Your task to perform on an android device: Nike Air Max 2020 shoes on Nike.com Image 0: 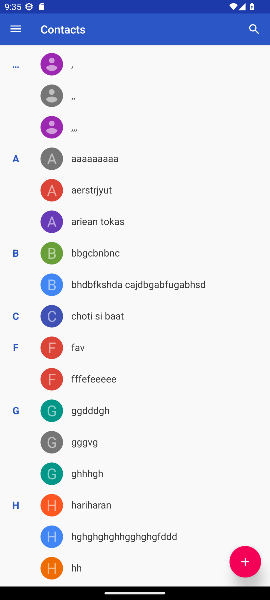
Step 0: press home button
Your task to perform on an android device: Nike Air Max 2020 shoes on Nike.com Image 1: 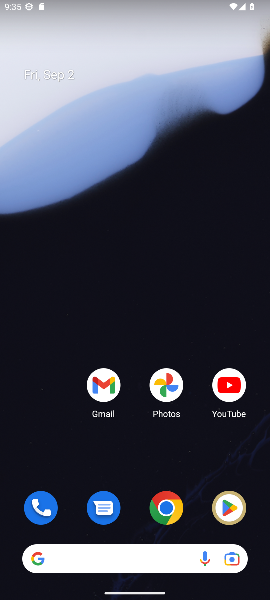
Step 1: drag from (141, 462) to (159, 97)
Your task to perform on an android device: Nike Air Max 2020 shoes on Nike.com Image 2: 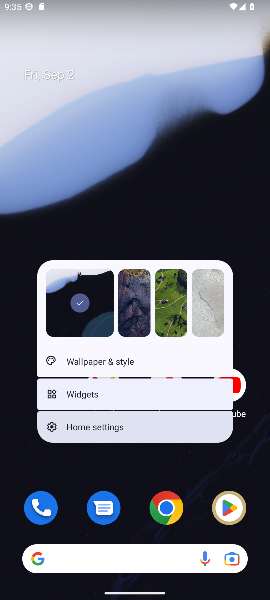
Step 2: click (155, 134)
Your task to perform on an android device: Nike Air Max 2020 shoes on Nike.com Image 3: 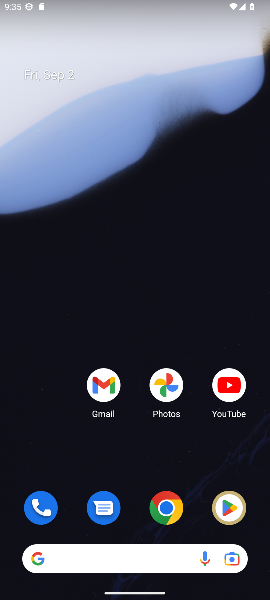
Step 3: drag from (135, 474) to (70, 79)
Your task to perform on an android device: Nike Air Max 2020 shoes on Nike.com Image 4: 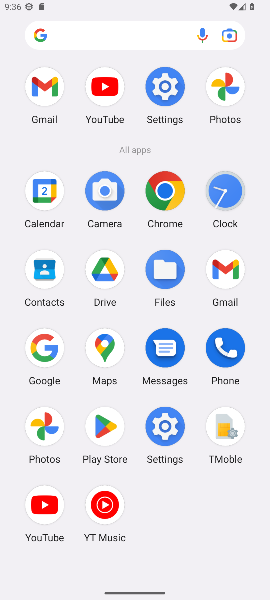
Step 4: click (163, 194)
Your task to perform on an android device: Nike Air Max 2020 shoes on Nike.com Image 5: 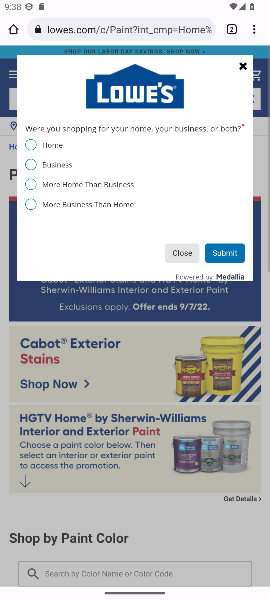
Step 5: click (110, 28)
Your task to perform on an android device: Nike Air Max 2020 shoes on Nike.com Image 6: 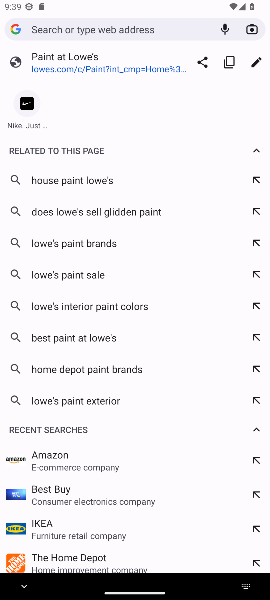
Step 6: type "Nike.com"
Your task to perform on an android device: Nike Air Max 2020 shoes on Nike.com Image 7: 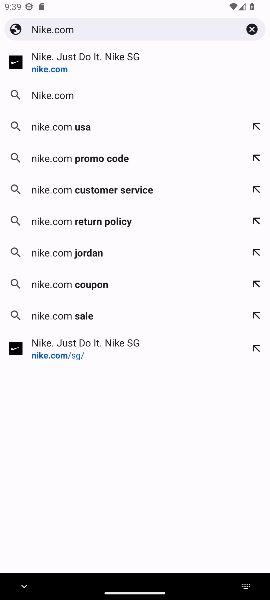
Step 7: click (46, 63)
Your task to perform on an android device: Nike Air Max 2020 shoes on Nike.com Image 8: 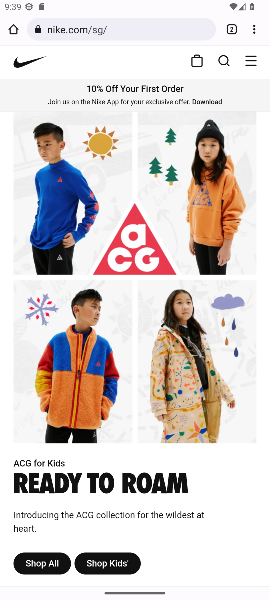
Step 8: click (221, 58)
Your task to perform on an android device: Nike Air Max 2020 shoes on Nike.com Image 9: 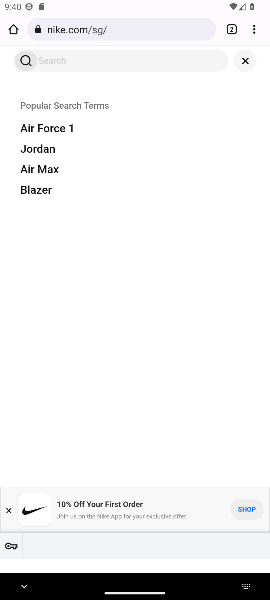
Step 9: type "Nike Air Max 2020 shoes"
Your task to perform on an android device: Nike Air Max 2020 shoes on Nike.com Image 10: 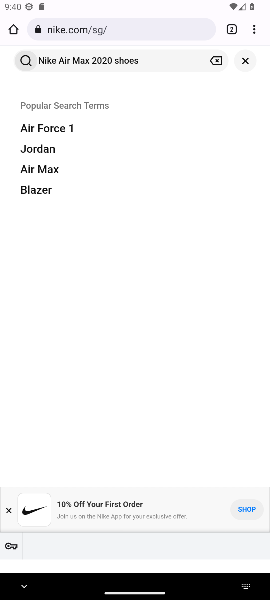
Step 10: click (160, 64)
Your task to perform on an android device: Nike Air Max 2020 shoes on Nike.com Image 11: 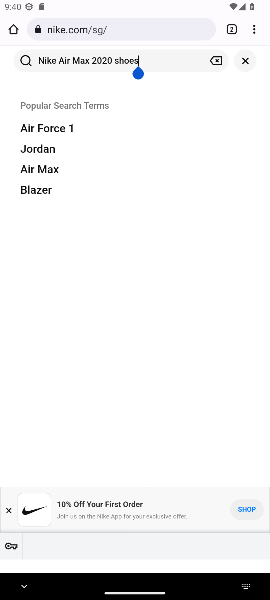
Step 11: click (167, 55)
Your task to perform on an android device: Nike Air Max 2020 shoes on Nike.com Image 12: 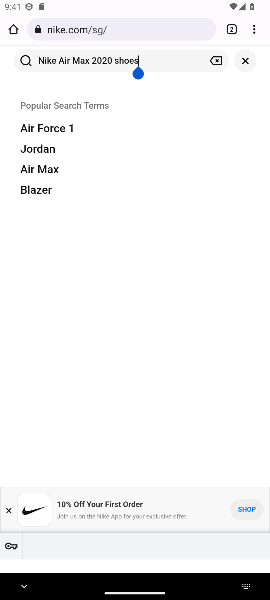
Step 12: task complete